Your task to perform on an android device: Add "logitech g910" to the cart on amazon.com Image 0: 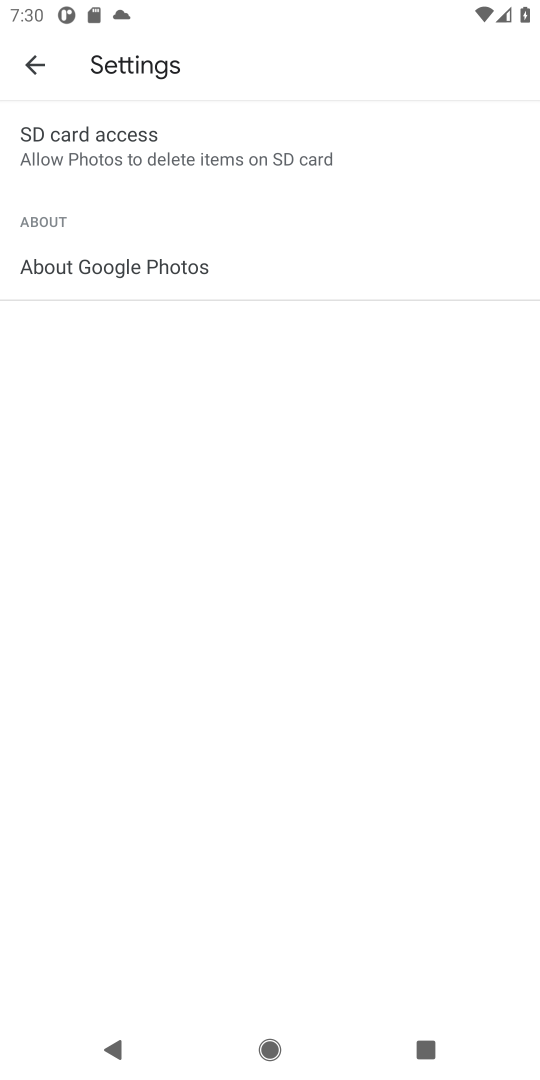
Step 0: press home button
Your task to perform on an android device: Add "logitech g910" to the cart on amazon.com Image 1: 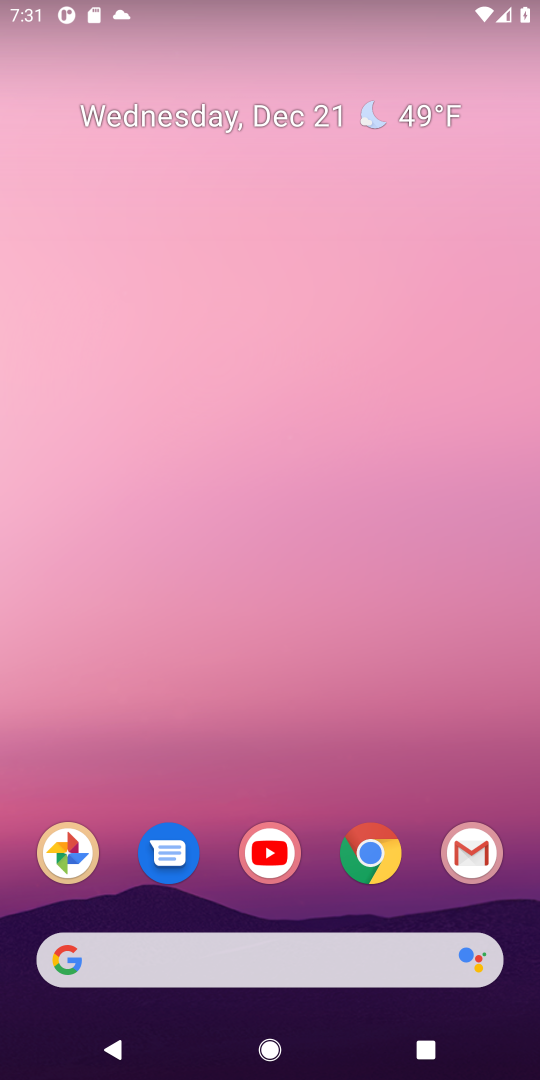
Step 1: click (370, 839)
Your task to perform on an android device: Add "logitech g910" to the cart on amazon.com Image 2: 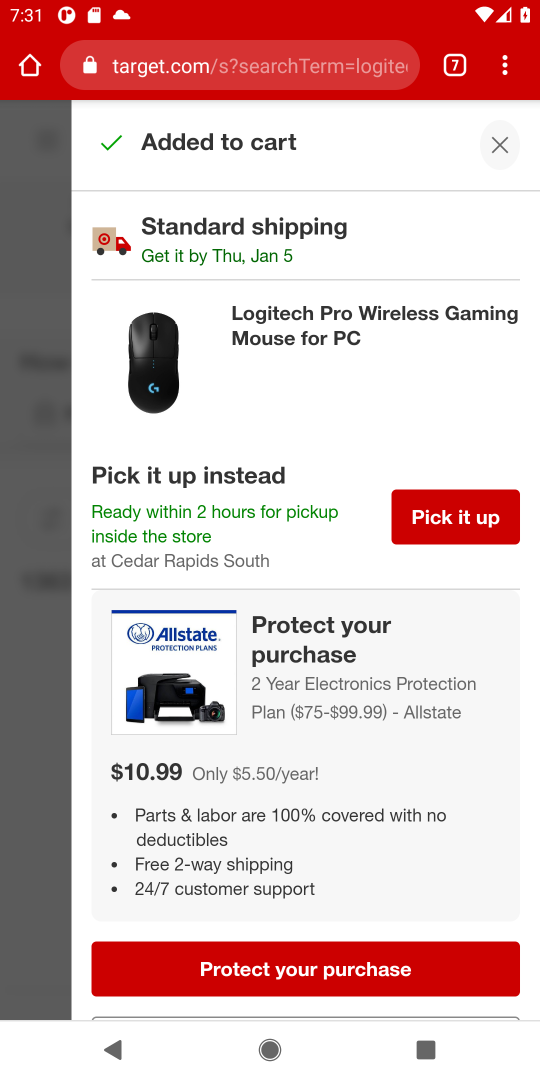
Step 2: click (461, 65)
Your task to perform on an android device: Add "logitech g910" to the cart on amazon.com Image 3: 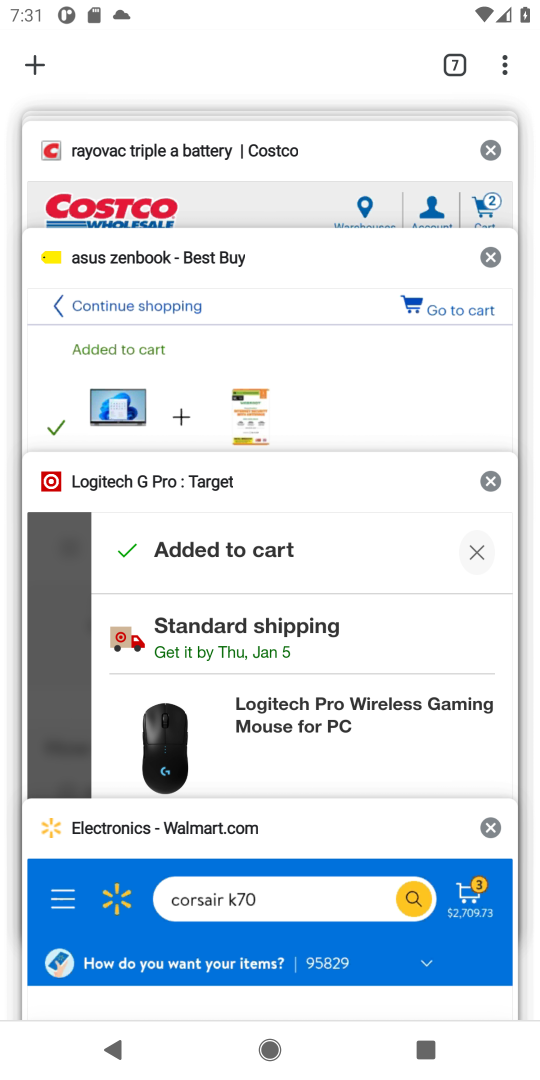
Step 3: drag from (144, 951) to (246, 301)
Your task to perform on an android device: Add "logitech g910" to the cart on amazon.com Image 4: 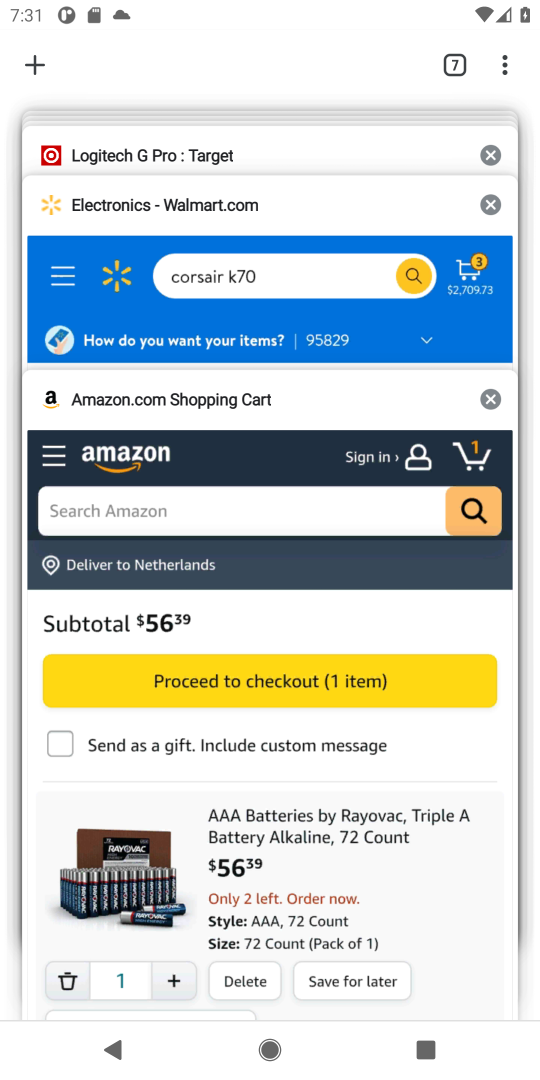
Step 4: click (164, 506)
Your task to perform on an android device: Add "logitech g910" to the cart on amazon.com Image 5: 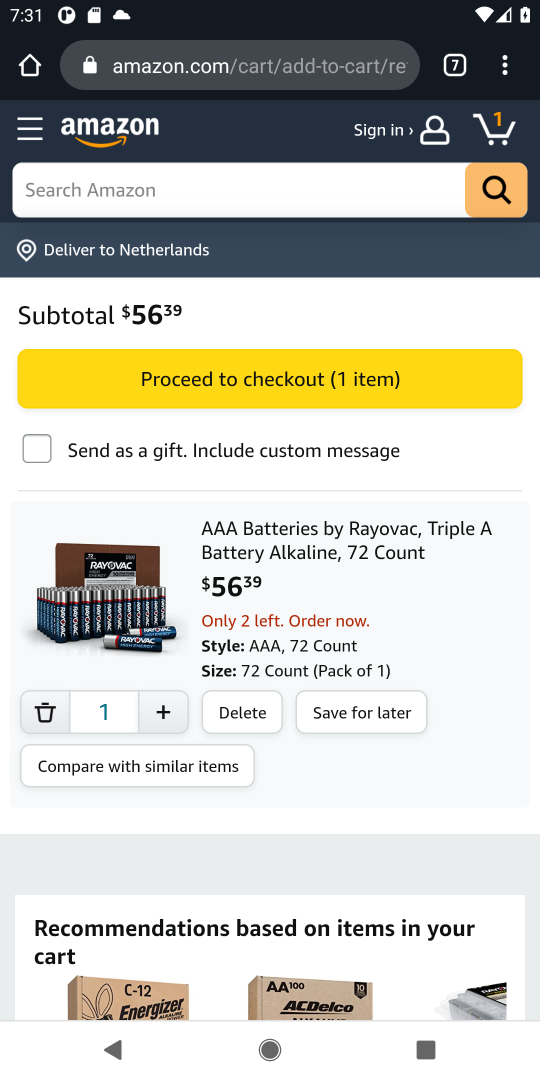
Step 5: click (189, 193)
Your task to perform on an android device: Add "logitech g910" to the cart on amazon.com Image 6: 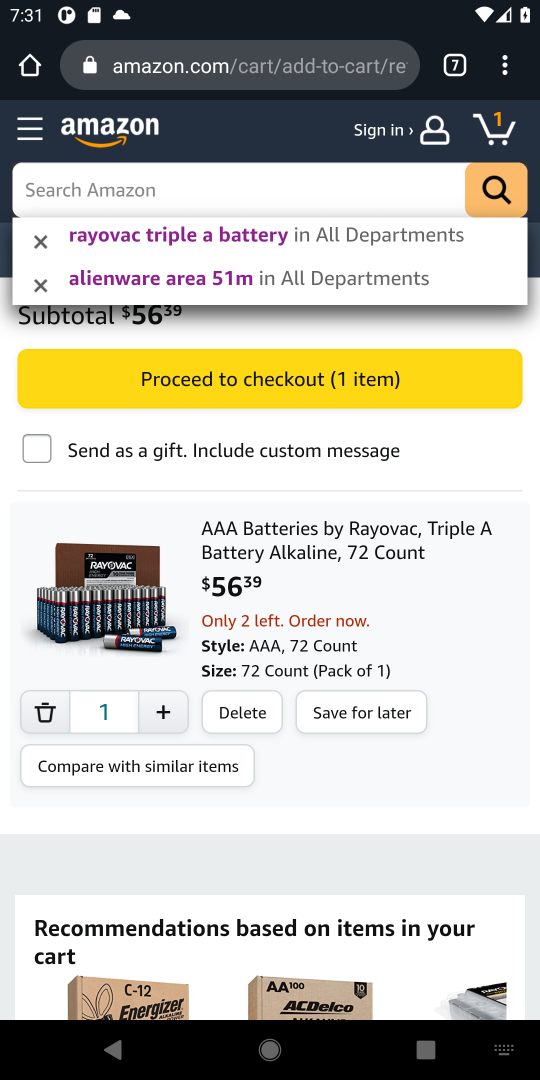
Step 6: type "logitech g910"
Your task to perform on an android device: Add "logitech g910" to the cart on amazon.com Image 7: 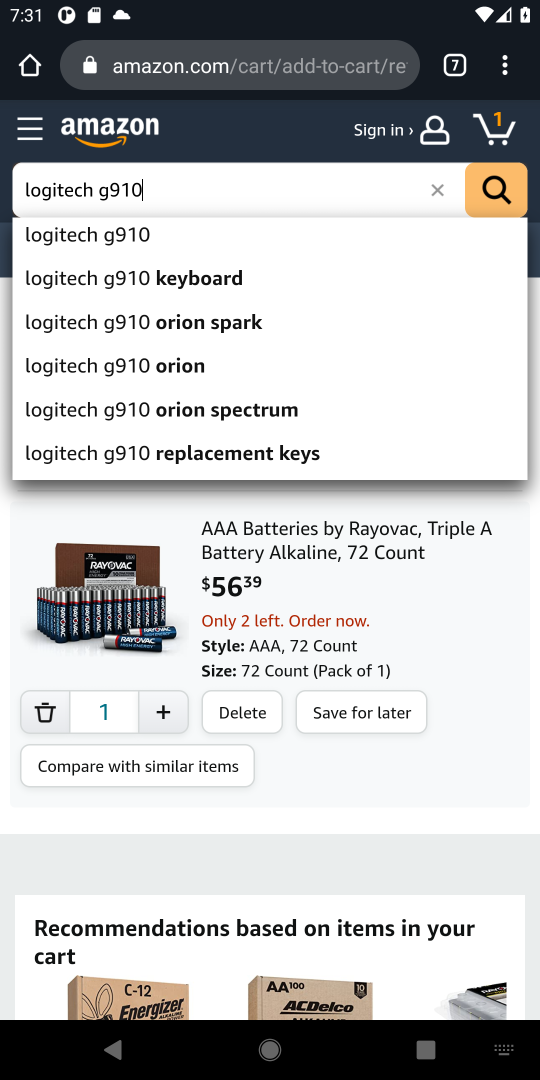
Step 7: click (97, 233)
Your task to perform on an android device: Add "logitech g910" to the cart on amazon.com Image 8: 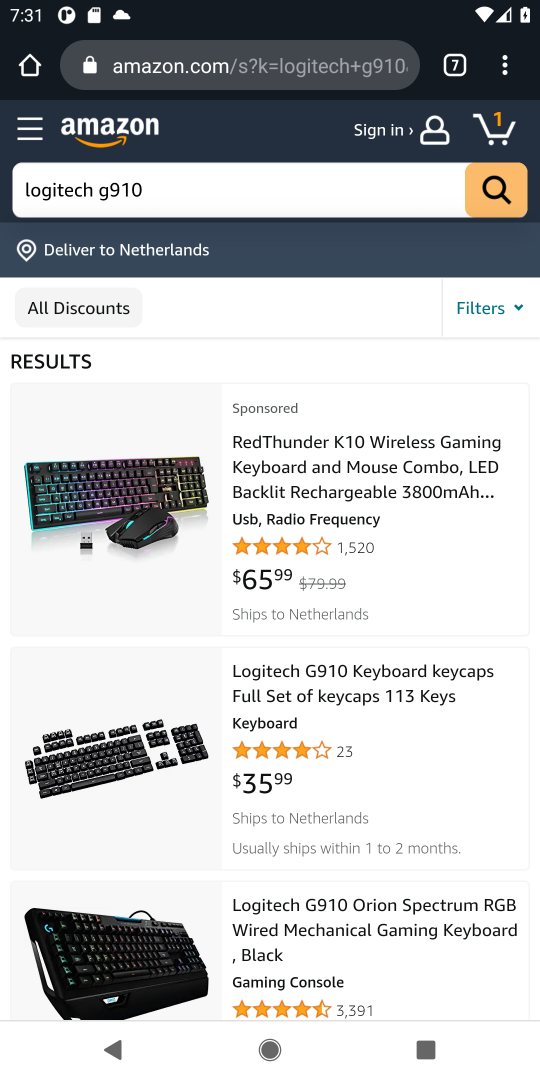
Step 8: click (332, 678)
Your task to perform on an android device: Add "logitech g910" to the cart on amazon.com Image 9: 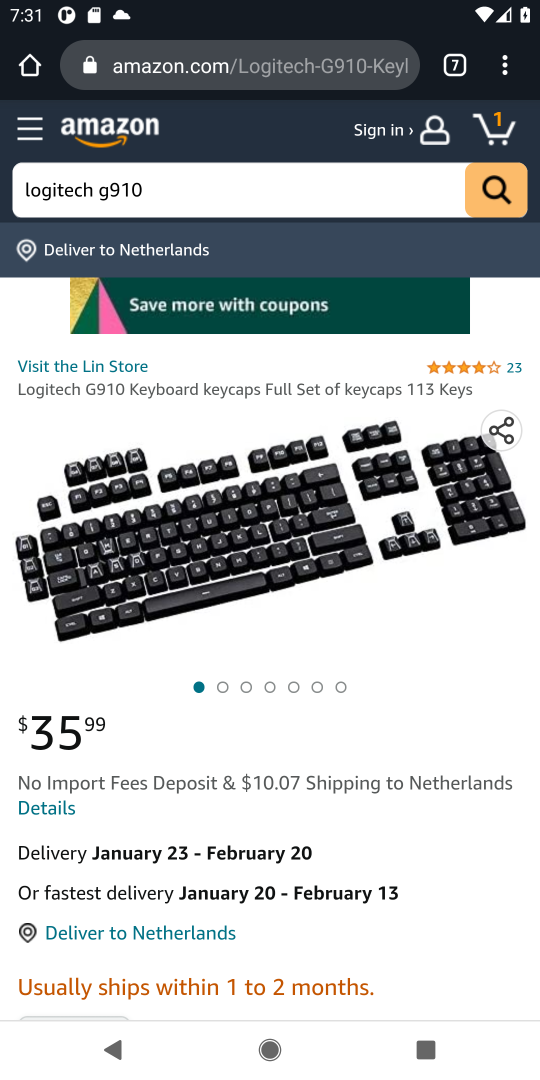
Step 9: drag from (273, 933) to (388, 259)
Your task to perform on an android device: Add "logitech g910" to the cart on amazon.com Image 10: 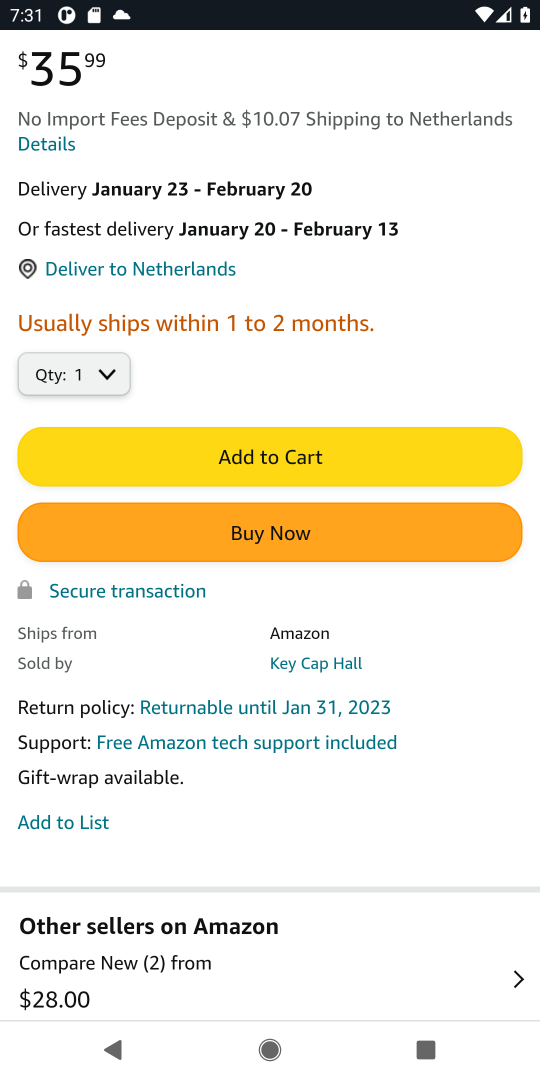
Step 10: click (296, 461)
Your task to perform on an android device: Add "logitech g910" to the cart on amazon.com Image 11: 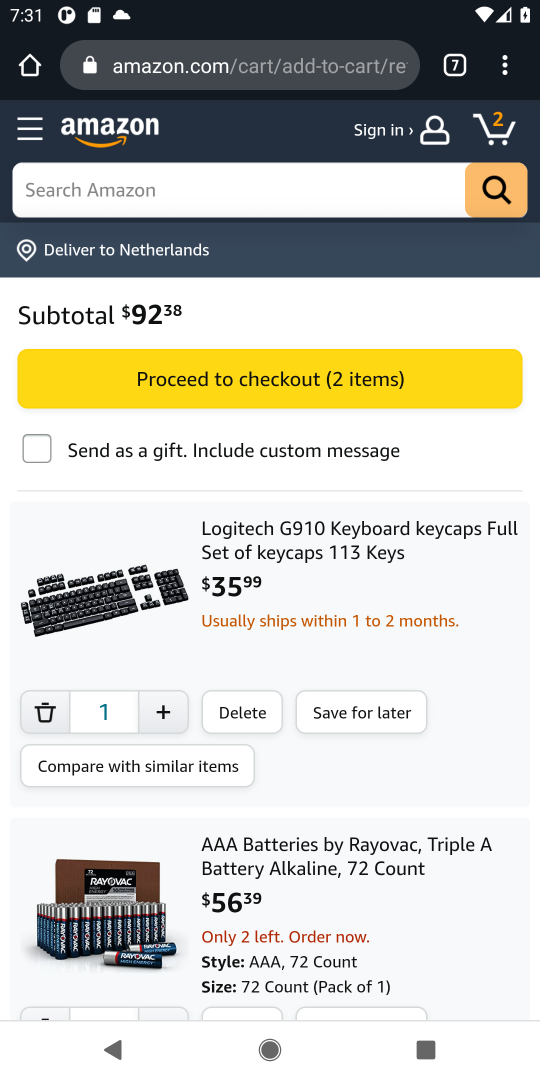
Step 11: task complete